Your task to perform on an android device: What's the weather going to be tomorrow? Image 0: 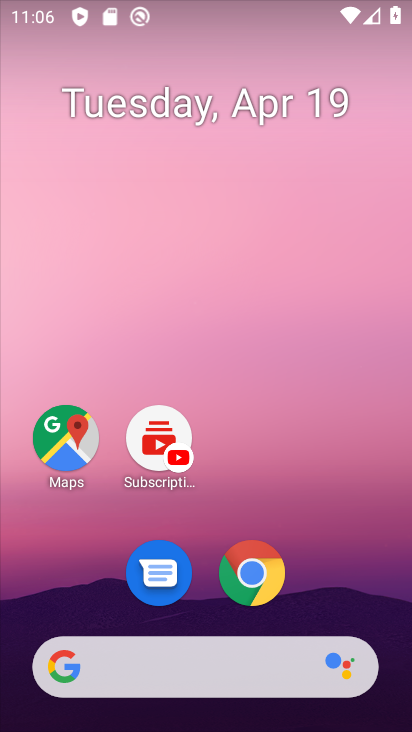
Step 0: click (266, 575)
Your task to perform on an android device: What's the weather going to be tomorrow? Image 1: 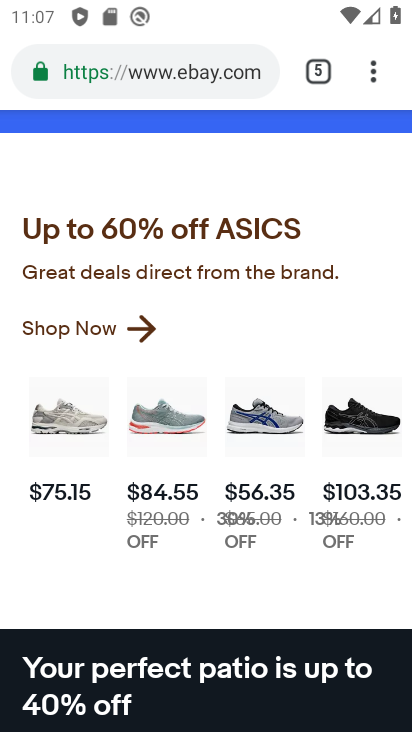
Step 1: click (315, 73)
Your task to perform on an android device: What's the weather going to be tomorrow? Image 2: 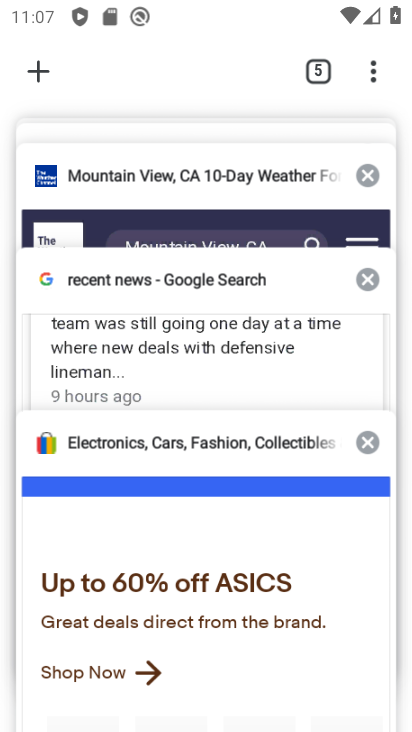
Step 2: drag from (220, 187) to (218, 404)
Your task to perform on an android device: What's the weather going to be tomorrow? Image 3: 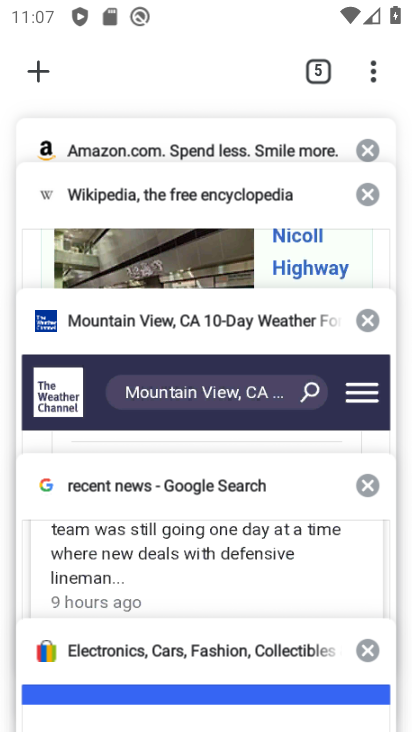
Step 3: click (41, 68)
Your task to perform on an android device: What's the weather going to be tomorrow? Image 4: 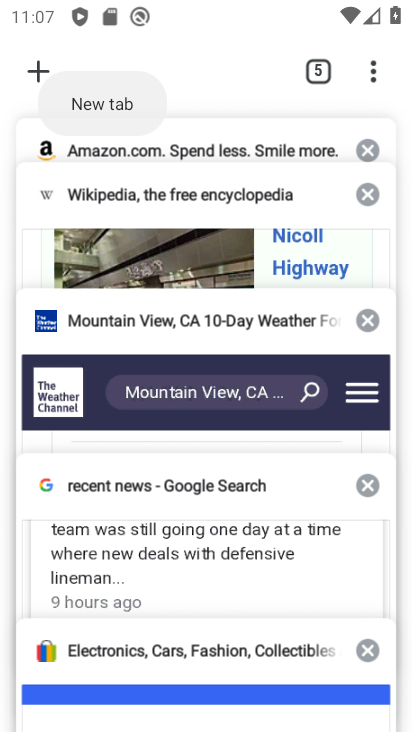
Step 4: click (40, 73)
Your task to perform on an android device: What's the weather going to be tomorrow? Image 5: 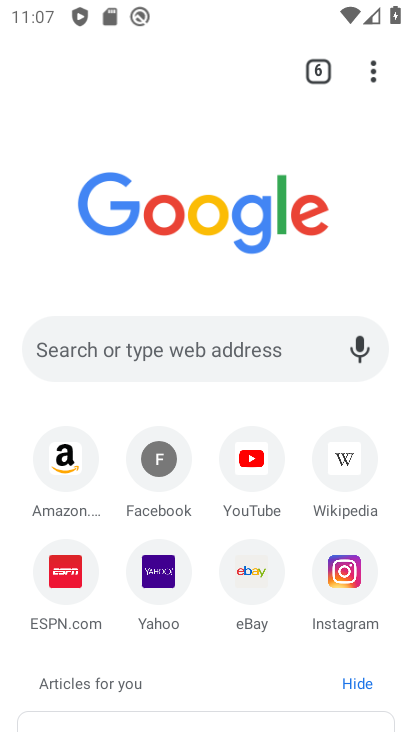
Step 5: click (118, 352)
Your task to perform on an android device: What's the weather going to be tomorrow? Image 6: 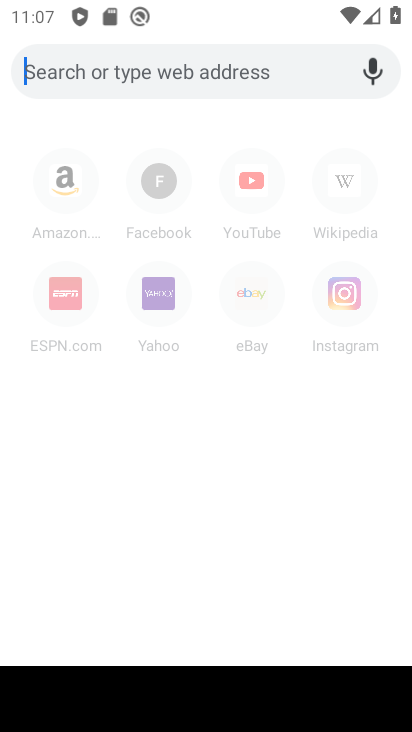
Step 6: type "whats the weather going to be tomorrow"
Your task to perform on an android device: What's the weather going to be tomorrow? Image 7: 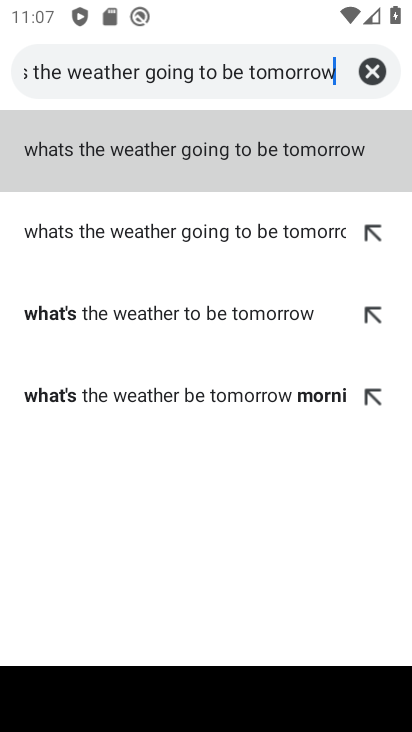
Step 7: click (66, 144)
Your task to perform on an android device: What's the weather going to be tomorrow? Image 8: 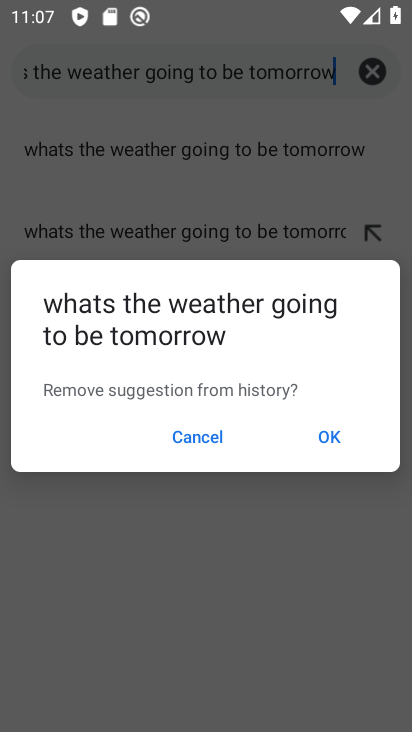
Step 8: click (161, 185)
Your task to perform on an android device: What's the weather going to be tomorrow? Image 9: 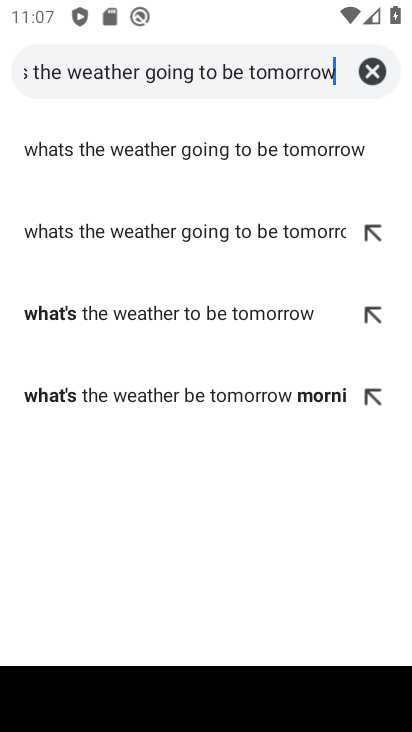
Step 9: click (150, 149)
Your task to perform on an android device: What's the weather going to be tomorrow? Image 10: 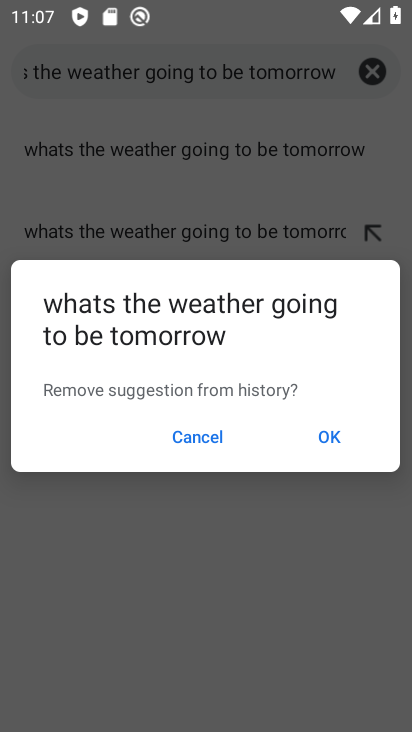
Step 10: click (150, 149)
Your task to perform on an android device: What's the weather going to be tomorrow? Image 11: 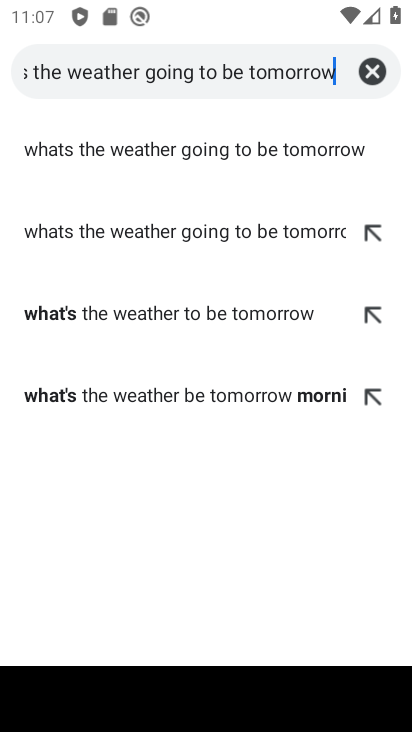
Step 11: click (83, 226)
Your task to perform on an android device: What's the weather going to be tomorrow? Image 12: 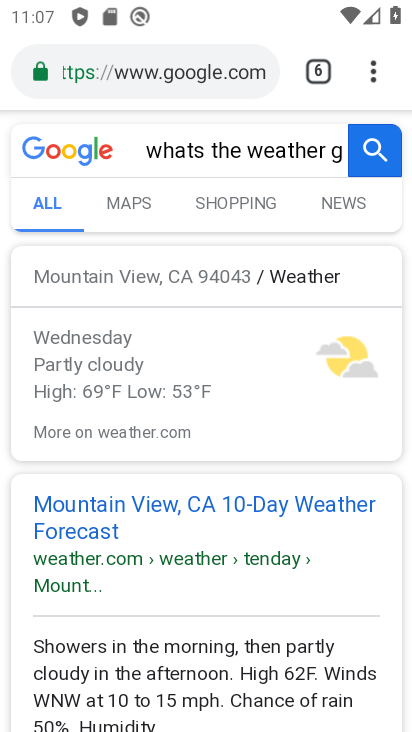
Step 12: click (145, 509)
Your task to perform on an android device: What's the weather going to be tomorrow? Image 13: 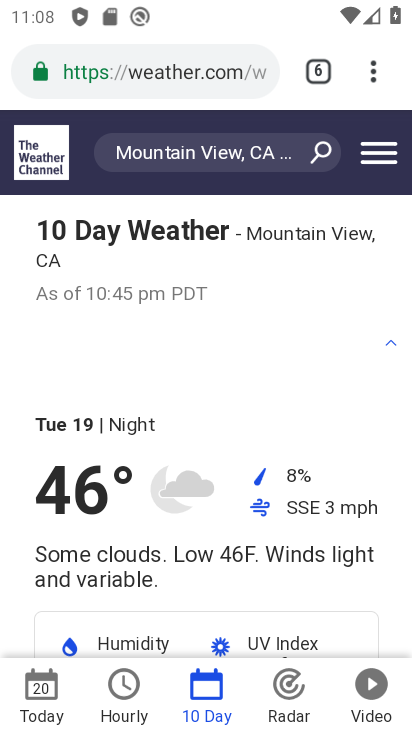
Step 13: task complete